Your task to perform on an android device: turn notification dots on Image 0: 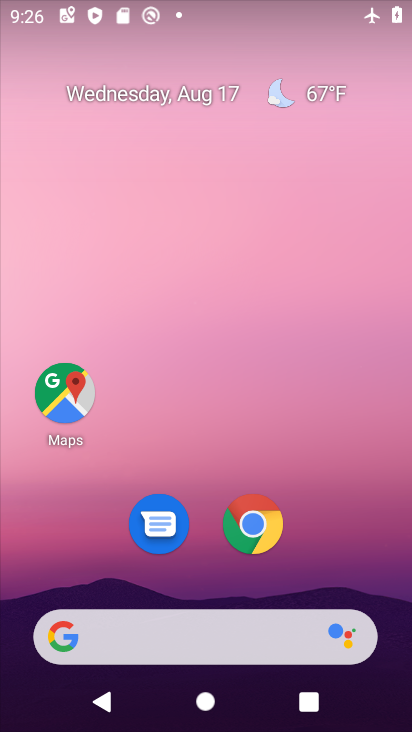
Step 0: drag from (329, 526) to (357, 9)
Your task to perform on an android device: turn notification dots on Image 1: 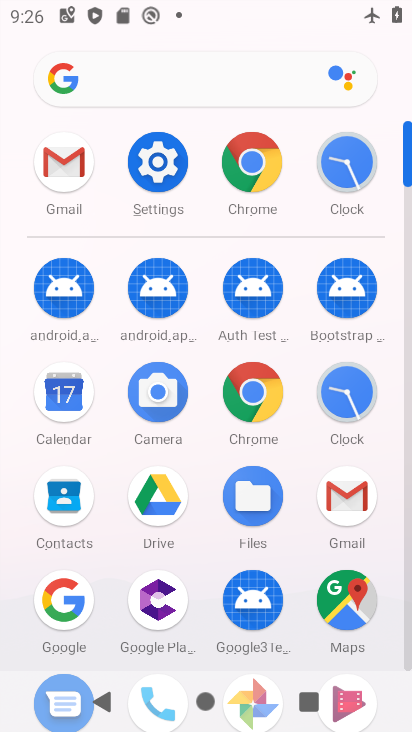
Step 1: click (156, 150)
Your task to perform on an android device: turn notification dots on Image 2: 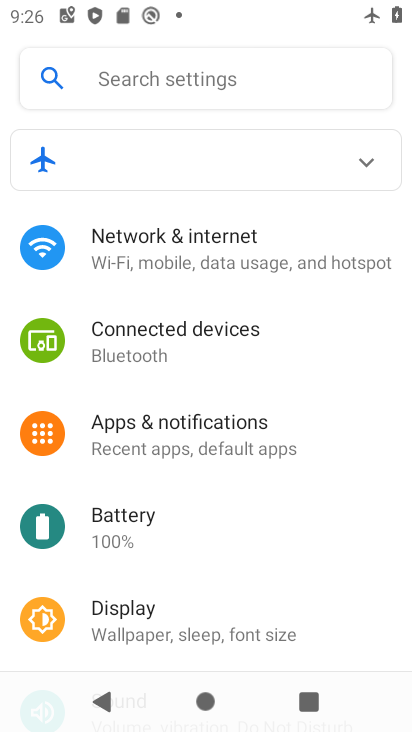
Step 2: click (216, 435)
Your task to perform on an android device: turn notification dots on Image 3: 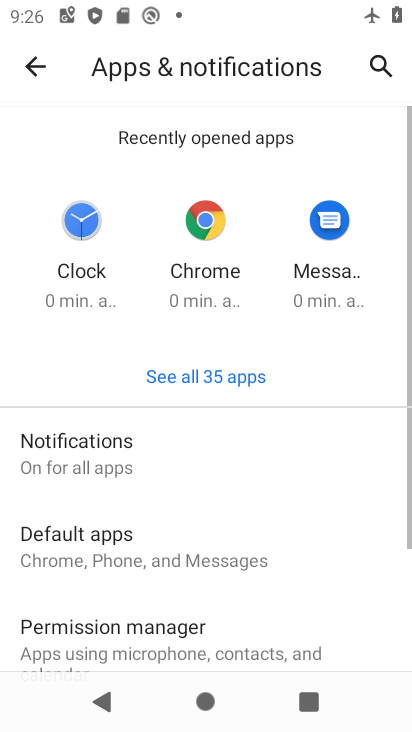
Step 3: click (107, 456)
Your task to perform on an android device: turn notification dots on Image 4: 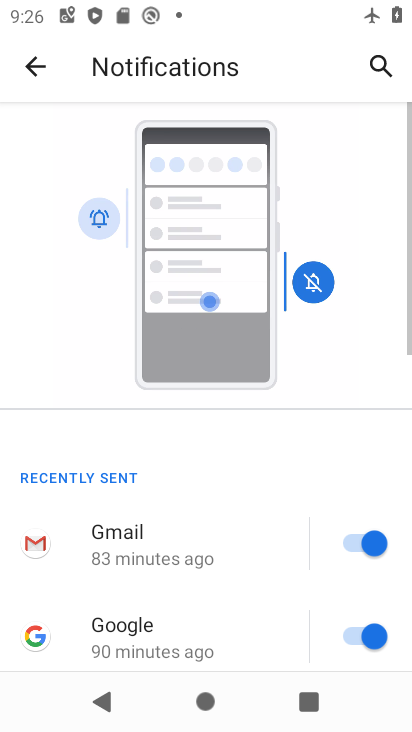
Step 4: drag from (237, 588) to (276, 0)
Your task to perform on an android device: turn notification dots on Image 5: 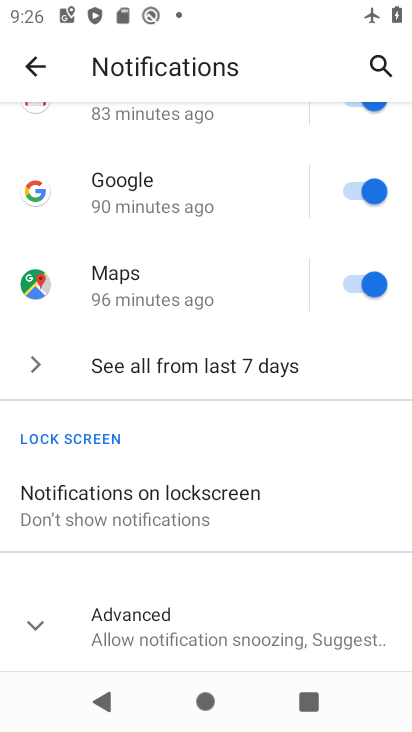
Step 5: click (31, 623)
Your task to perform on an android device: turn notification dots on Image 6: 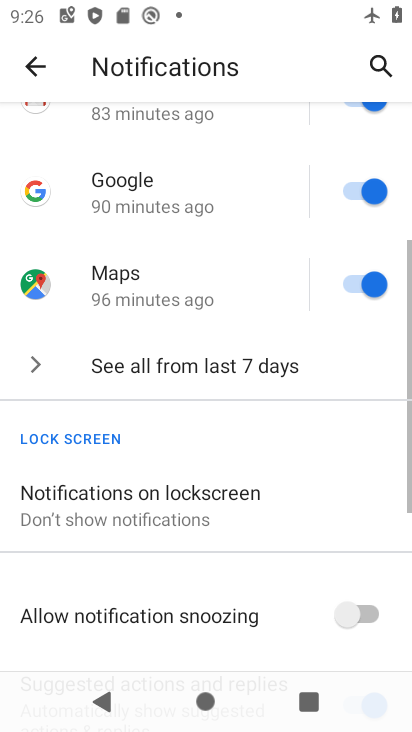
Step 6: drag from (279, 461) to (312, 8)
Your task to perform on an android device: turn notification dots on Image 7: 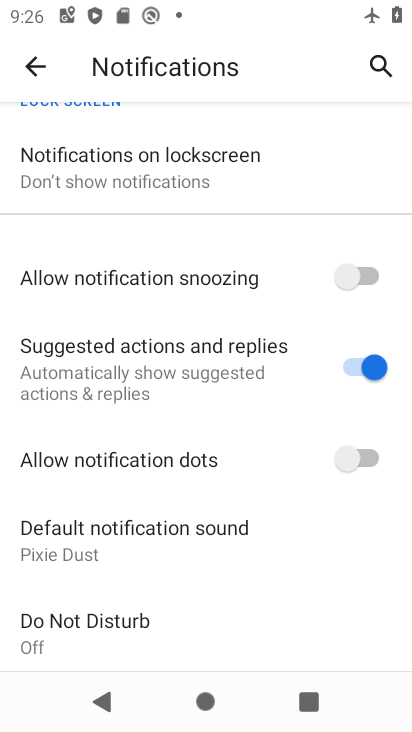
Step 7: click (371, 453)
Your task to perform on an android device: turn notification dots on Image 8: 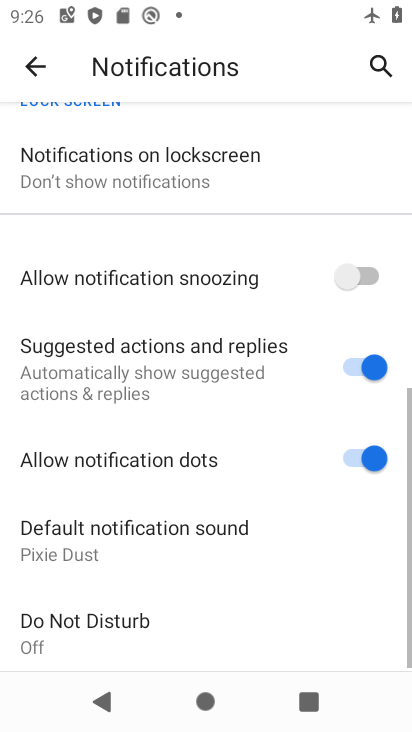
Step 8: task complete